Your task to perform on an android device: turn off data saver in the chrome app Image 0: 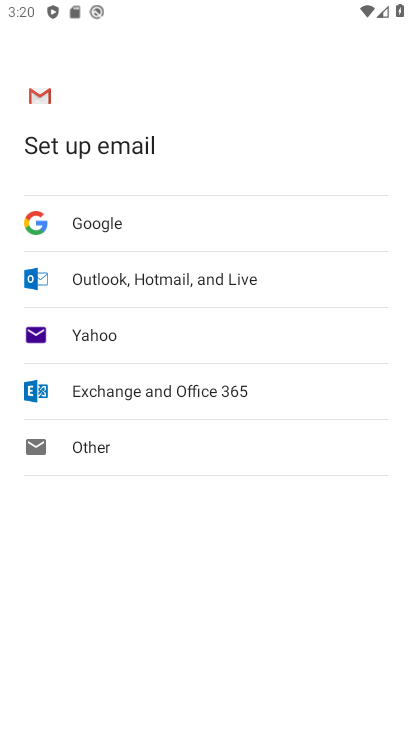
Step 0: press home button
Your task to perform on an android device: turn off data saver in the chrome app Image 1: 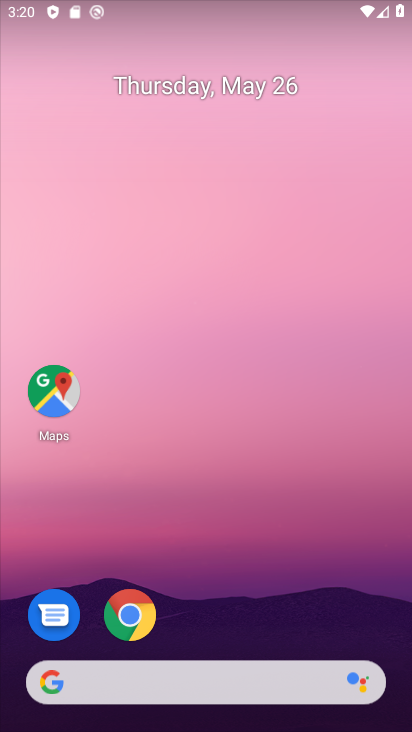
Step 1: drag from (360, 622) to (352, 108)
Your task to perform on an android device: turn off data saver in the chrome app Image 2: 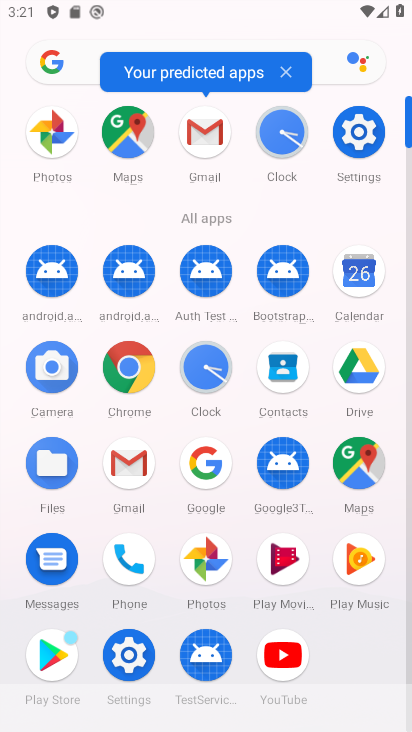
Step 2: click (127, 383)
Your task to perform on an android device: turn off data saver in the chrome app Image 3: 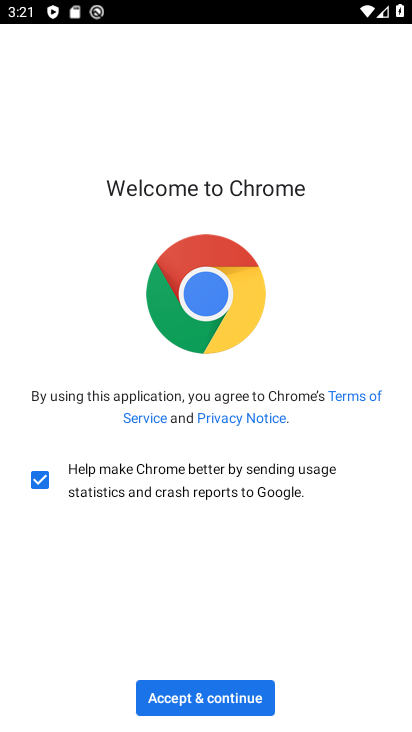
Step 3: click (178, 704)
Your task to perform on an android device: turn off data saver in the chrome app Image 4: 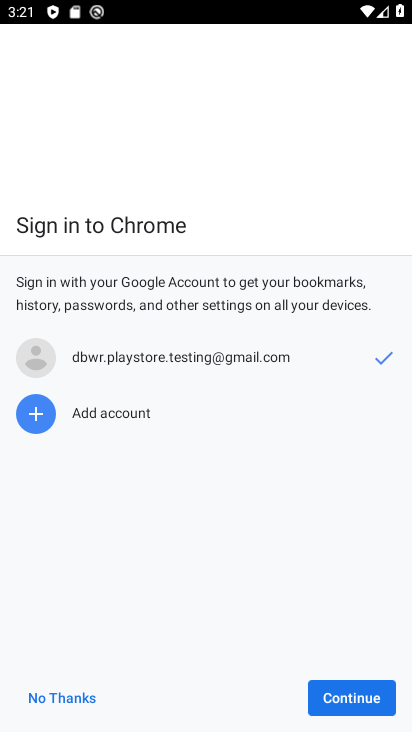
Step 4: click (323, 698)
Your task to perform on an android device: turn off data saver in the chrome app Image 5: 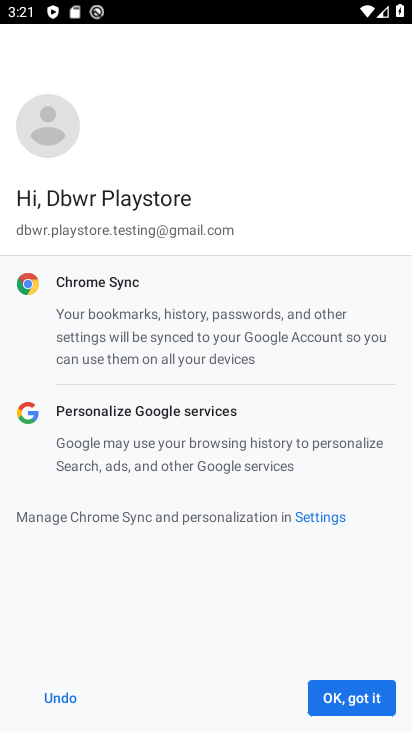
Step 5: click (323, 698)
Your task to perform on an android device: turn off data saver in the chrome app Image 6: 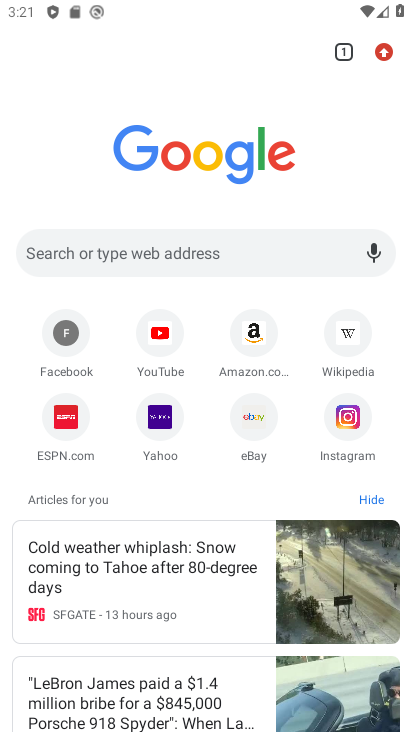
Step 6: click (382, 57)
Your task to perform on an android device: turn off data saver in the chrome app Image 7: 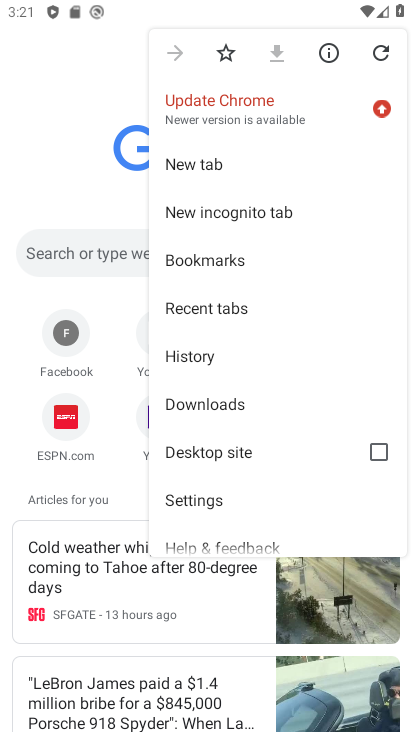
Step 7: click (233, 503)
Your task to perform on an android device: turn off data saver in the chrome app Image 8: 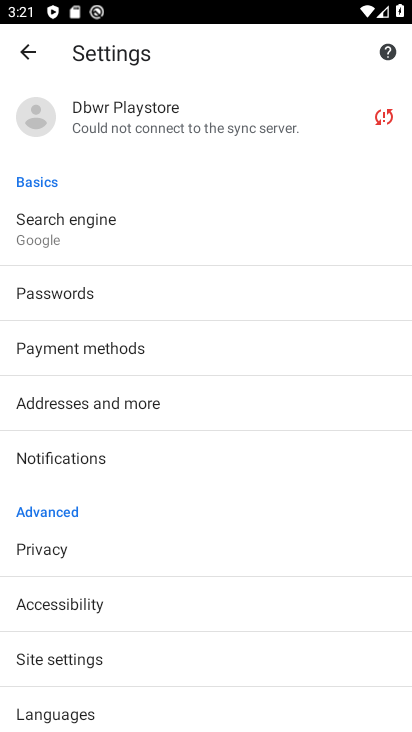
Step 8: drag from (272, 620) to (295, 410)
Your task to perform on an android device: turn off data saver in the chrome app Image 9: 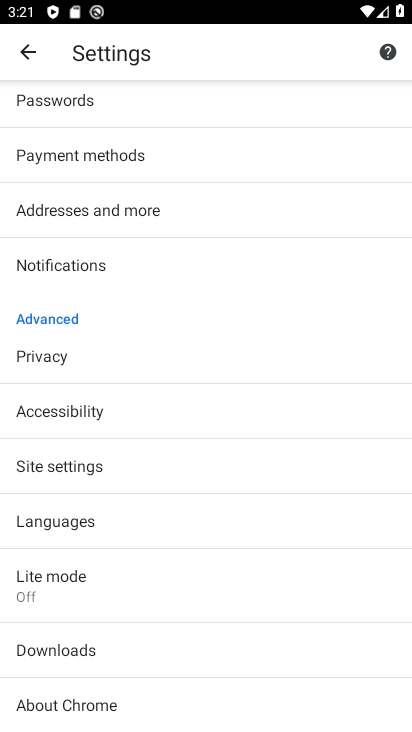
Step 9: drag from (295, 589) to (301, 408)
Your task to perform on an android device: turn off data saver in the chrome app Image 10: 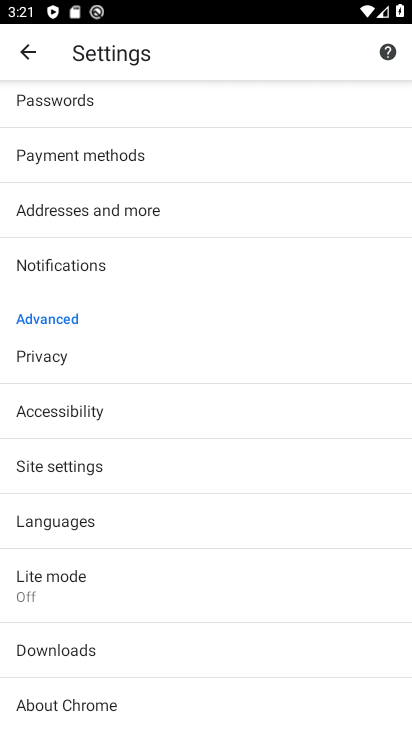
Step 10: click (273, 595)
Your task to perform on an android device: turn off data saver in the chrome app Image 11: 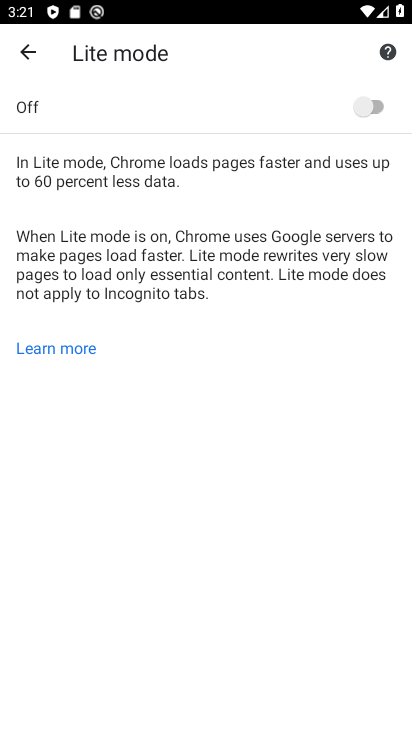
Step 11: task complete